Your task to perform on an android device: Add "amazon basics triple a" to the cart on amazon.com Image 0: 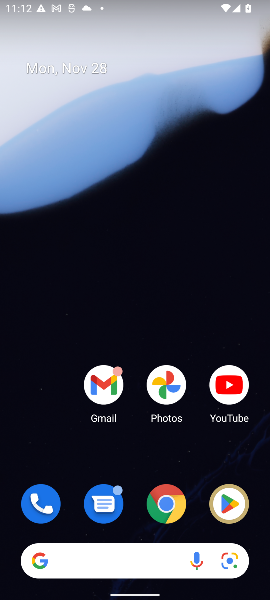
Step 0: click (160, 511)
Your task to perform on an android device: Add "amazon basics triple a" to the cart on amazon.com Image 1: 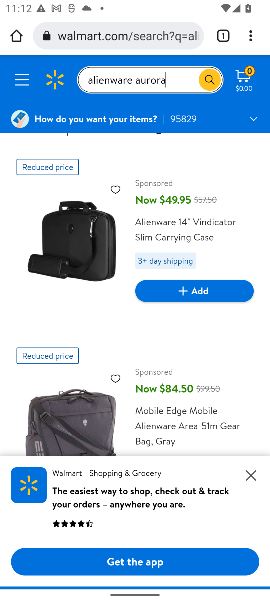
Step 1: click (123, 38)
Your task to perform on an android device: Add "amazon basics triple a" to the cart on amazon.com Image 2: 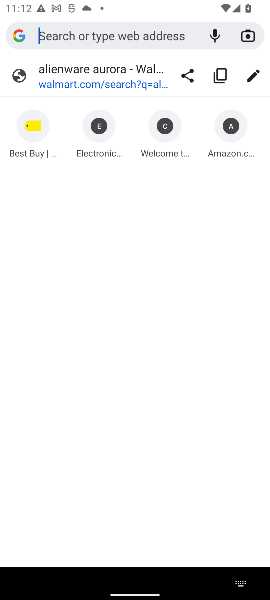
Step 2: type "amazon.com"
Your task to perform on an android device: Add "amazon basics triple a" to the cart on amazon.com Image 3: 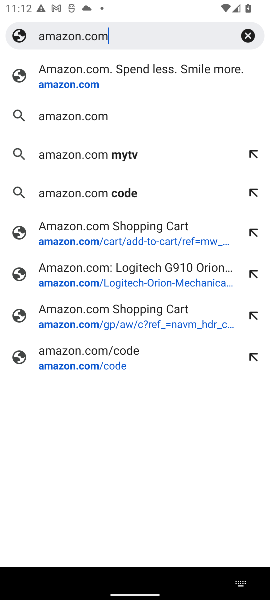
Step 3: click (44, 94)
Your task to perform on an android device: Add "amazon basics triple a" to the cart on amazon.com Image 4: 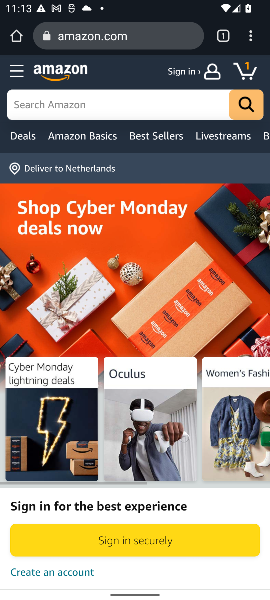
Step 4: click (67, 103)
Your task to perform on an android device: Add "amazon basics triple a" to the cart on amazon.com Image 5: 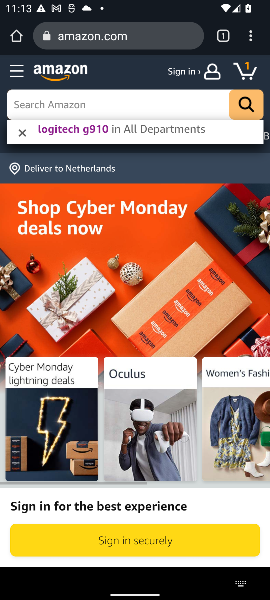
Step 5: type "amazon basics triple a"
Your task to perform on an android device: Add "amazon basics triple a" to the cart on amazon.com Image 6: 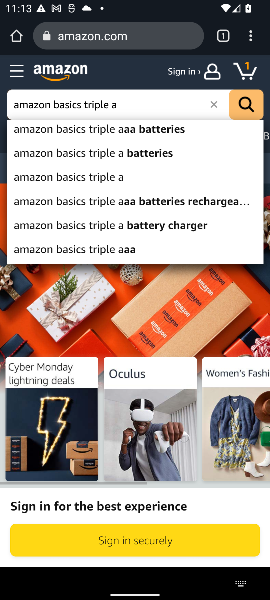
Step 6: click (81, 132)
Your task to perform on an android device: Add "amazon basics triple a" to the cart on amazon.com Image 7: 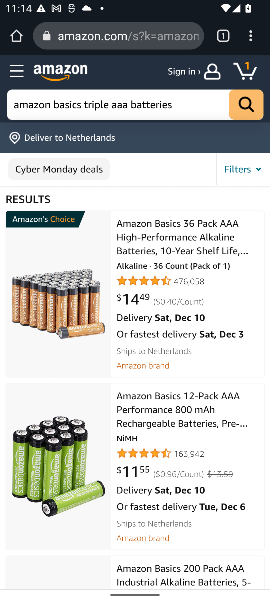
Step 7: click (177, 262)
Your task to perform on an android device: Add "amazon basics triple a" to the cart on amazon.com Image 8: 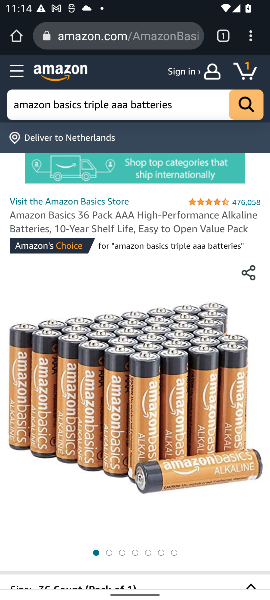
Step 8: drag from (135, 413) to (132, 259)
Your task to perform on an android device: Add "amazon basics triple a" to the cart on amazon.com Image 9: 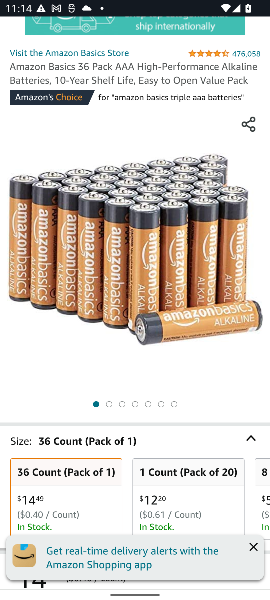
Step 9: drag from (115, 465) to (116, 214)
Your task to perform on an android device: Add "amazon basics triple a" to the cart on amazon.com Image 10: 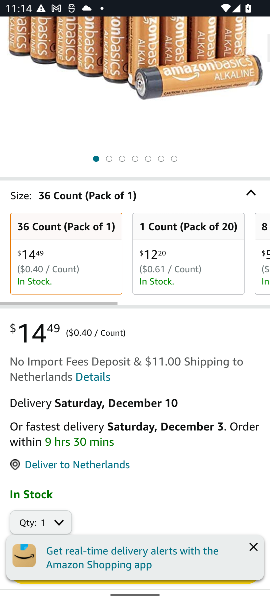
Step 10: drag from (107, 406) to (119, 195)
Your task to perform on an android device: Add "amazon basics triple a" to the cart on amazon.com Image 11: 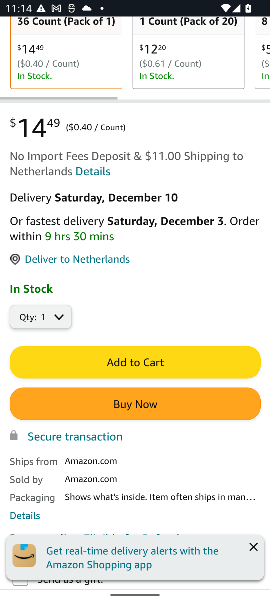
Step 11: click (118, 362)
Your task to perform on an android device: Add "amazon basics triple a" to the cart on amazon.com Image 12: 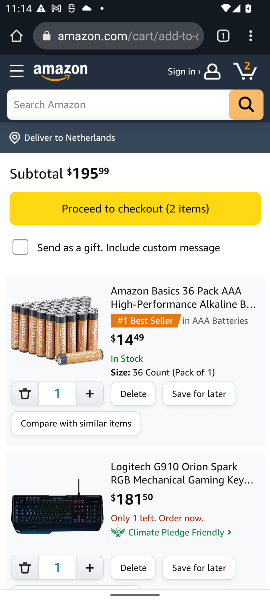
Step 12: task complete